Your task to perform on an android device: check battery use Image 0: 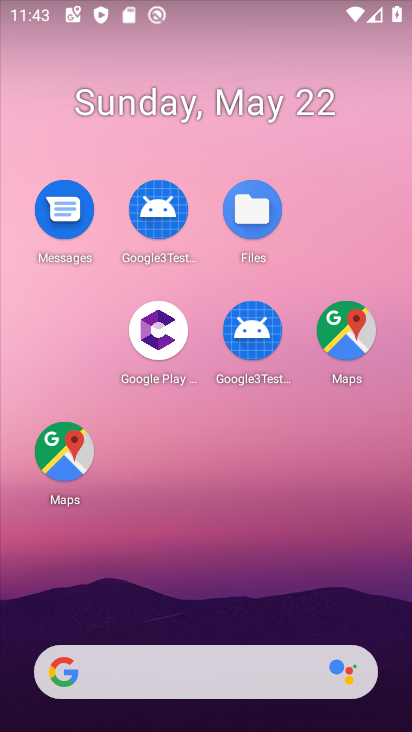
Step 0: drag from (228, 625) to (139, 33)
Your task to perform on an android device: check battery use Image 1: 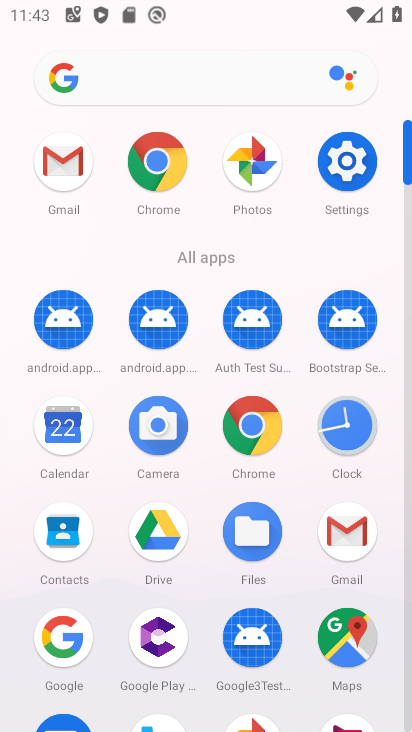
Step 1: click (341, 167)
Your task to perform on an android device: check battery use Image 2: 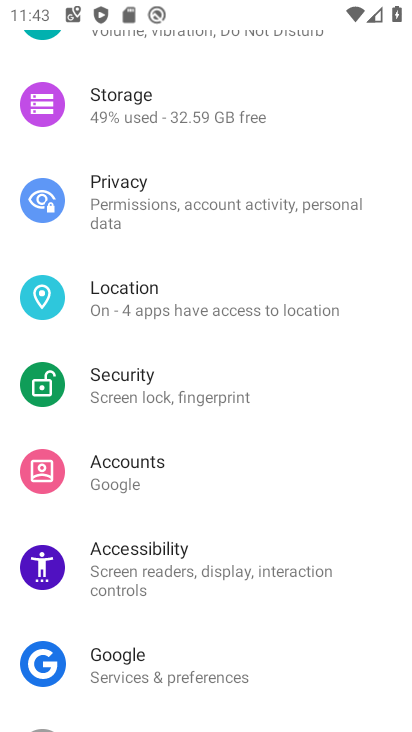
Step 2: drag from (218, 606) to (193, 187)
Your task to perform on an android device: check battery use Image 3: 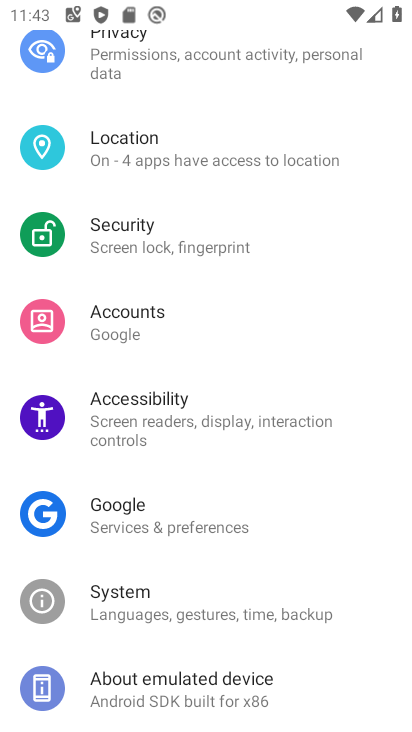
Step 3: drag from (193, 187) to (215, 627)
Your task to perform on an android device: check battery use Image 4: 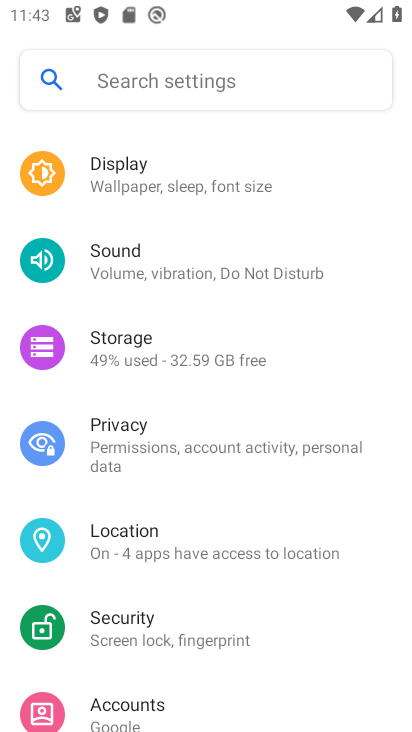
Step 4: drag from (214, 195) to (196, 439)
Your task to perform on an android device: check battery use Image 5: 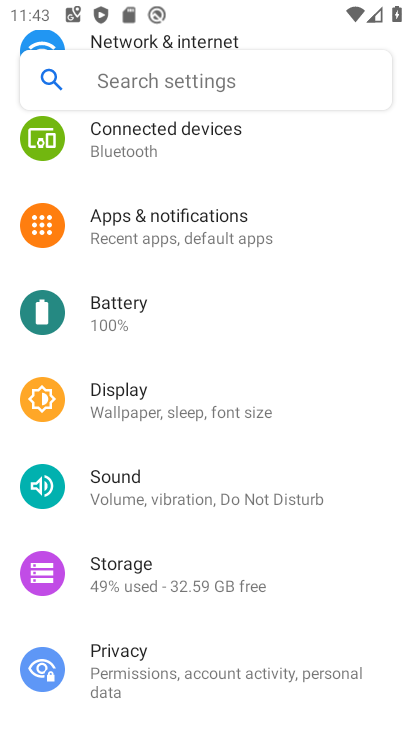
Step 5: click (136, 302)
Your task to perform on an android device: check battery use Image 6: 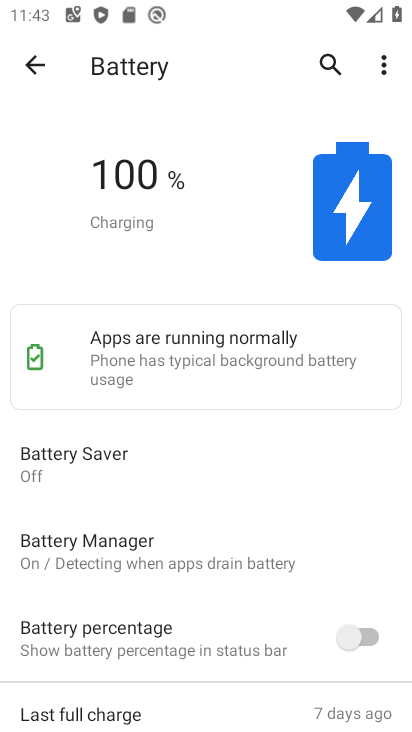
Step 6: click (385, 58)
Your task to perform on an android device: check battery use Image 7: 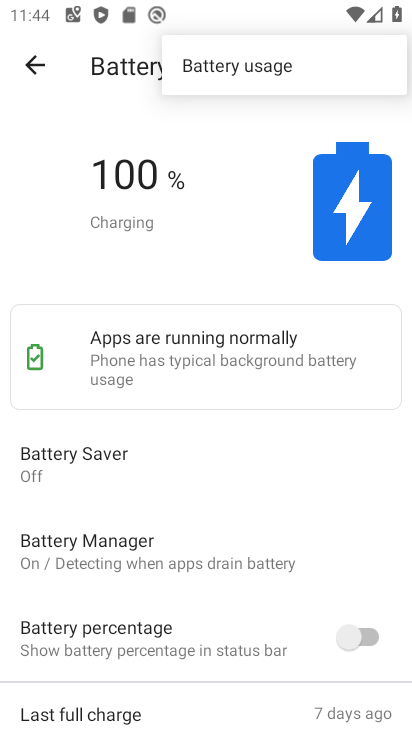
Step 7: click (262, 55)
Your task to perform on an android device: check battery use Image 8: 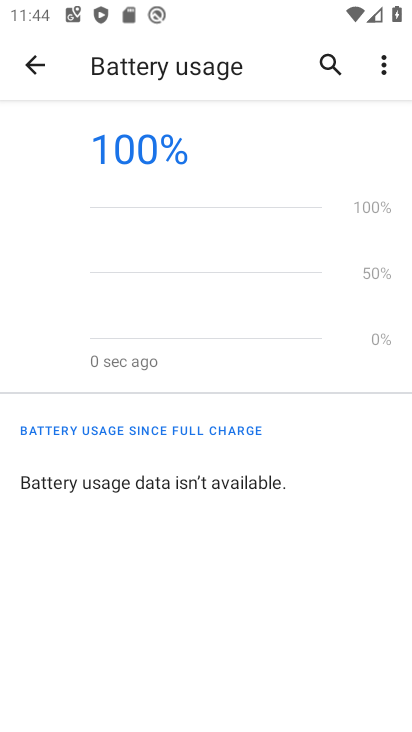
Step 8: task complete